Your task to perform on an android device: What's on my calendar tomorrow? Image 0: 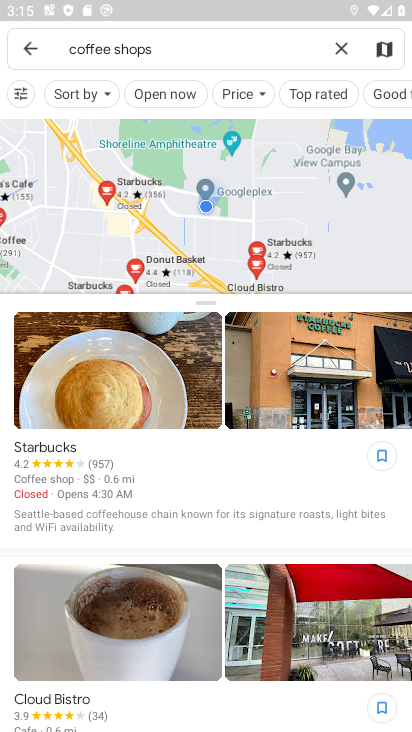
Step 0: press home button
Your task to perform on an android device: What's on my calendar tomorrow? Image 1: 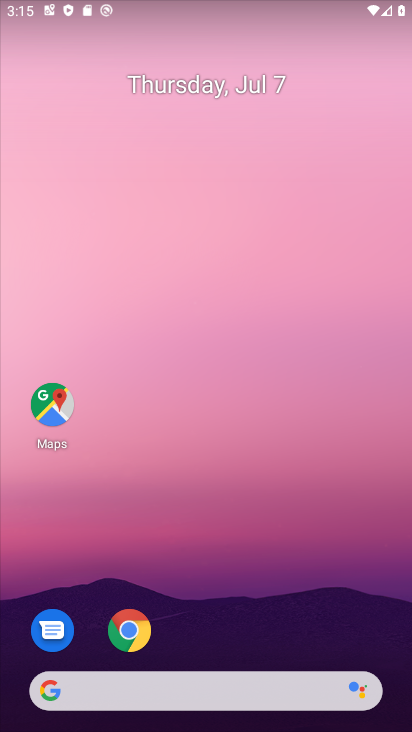
Step 1: drag from (241, 599) to (287, 49)
Your task to perform on an android device: What's on my calendar tomorrow? Image 2: 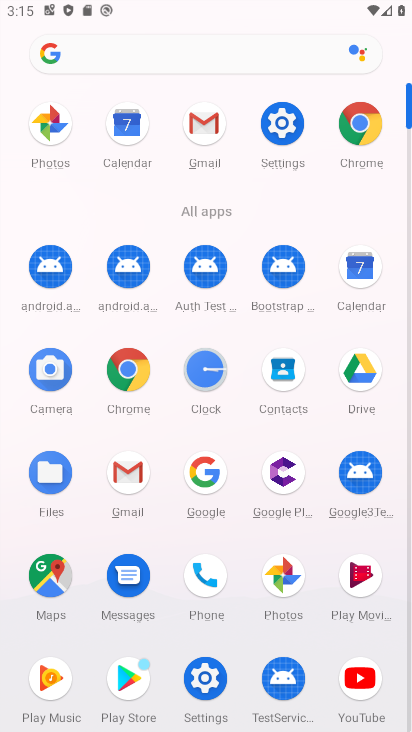
Step 2: click (378, 287)
Your task to perform on an android device: What's on my calendar tomorrow? Image 3: 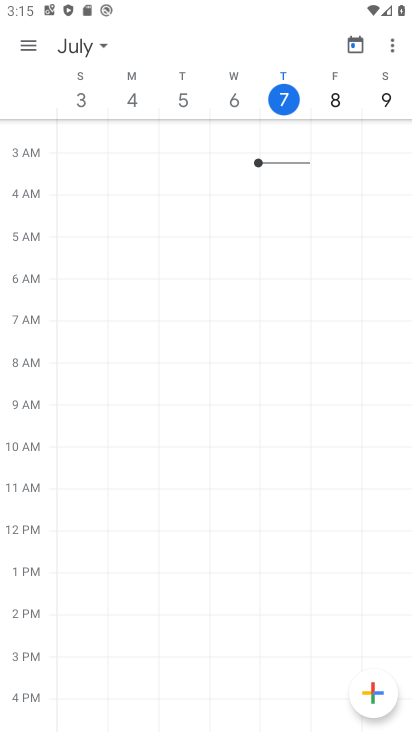
Step 3: click (29, 45)
Your task to perform on an android device: What's on my calendar tomorrow? Image 4: 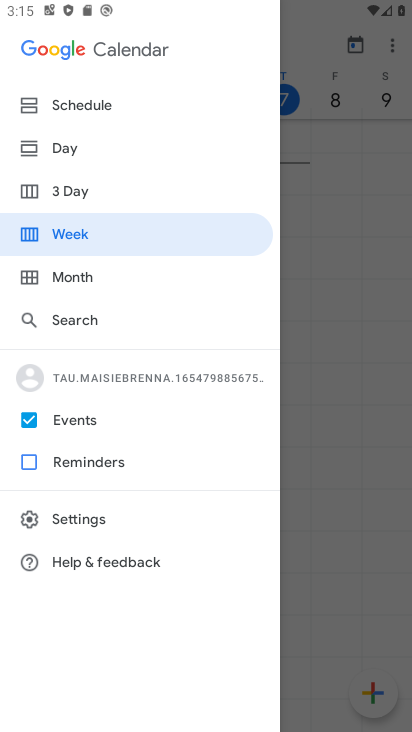
Step 4: click (42, 468)
Your task to perform on an android device: What's on my calendar tomorrow? Image 5: 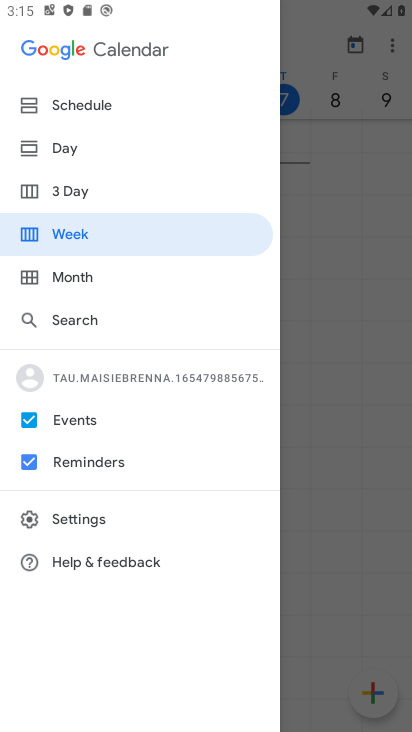
Step 5: click (109, 195)
Your task to perform on an android device: What's on my calendar tomorrow? Image 6: 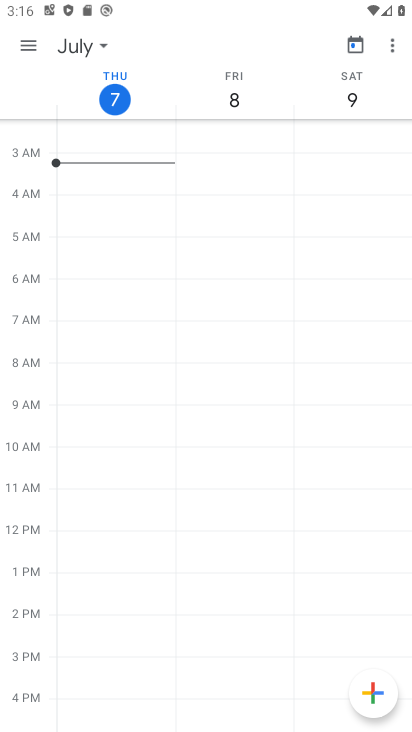
Step 6: task complete